Your task to perform on an android device: turn off picture-in-picture Image 0: 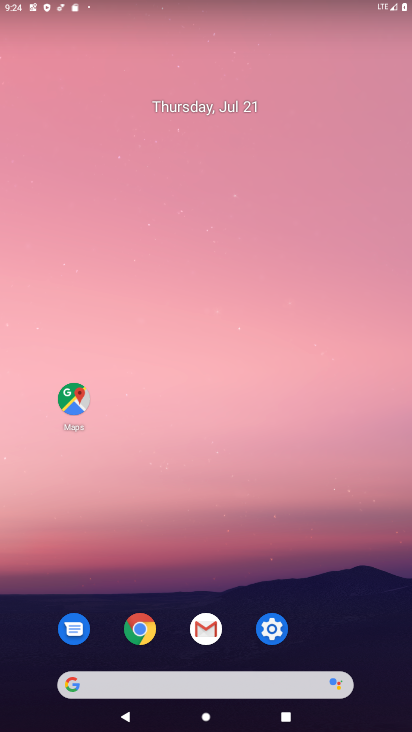
Step 0: drag from (286, 593) to (300, 128)
Your task to perform on an android device: turn off picture-in-picture Image 1: 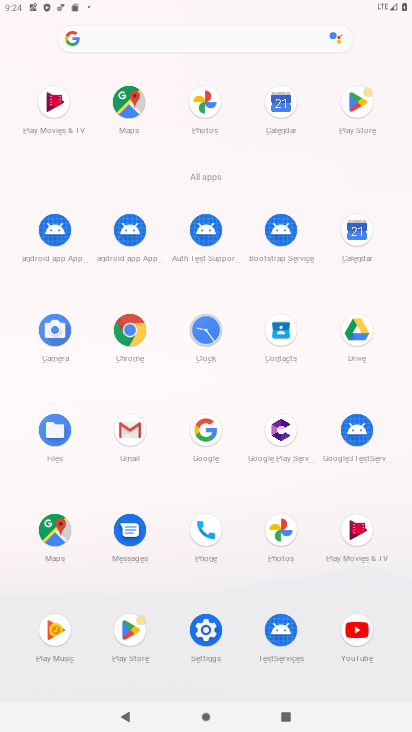
Step 1: click (361, 625)
Your task to perform on an android device: turn off picture-in-picture Image 2: 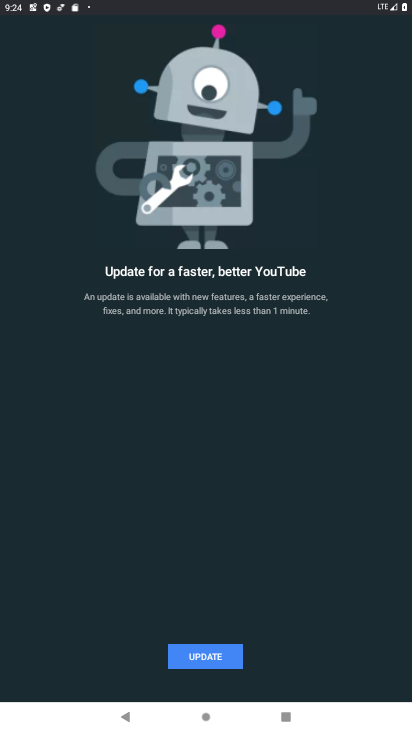
Step 2: click (193, 655)
Your task to perform on an android device: turn off picture-in-picture Image 3: 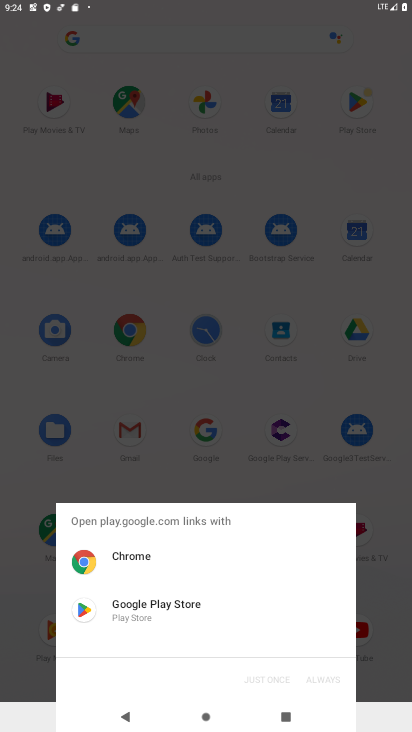
Step 3: click (147, 610)
Your task to perform on an android device: turn off picture-in-picture Image 4: 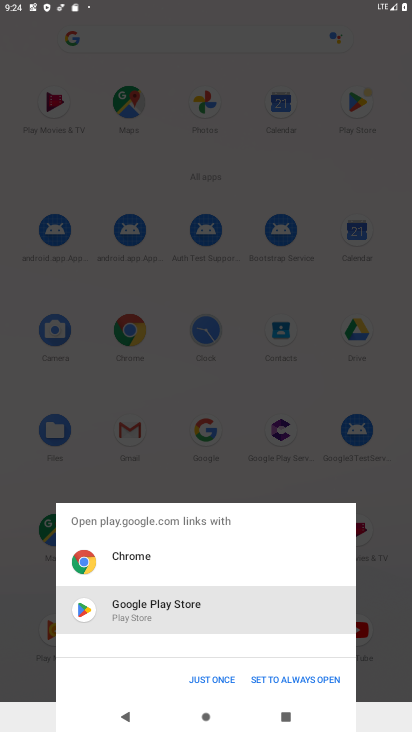
Step 4: click (206, 682)
Your task to perform on an android device: turn off picture-in-picture Image 5: 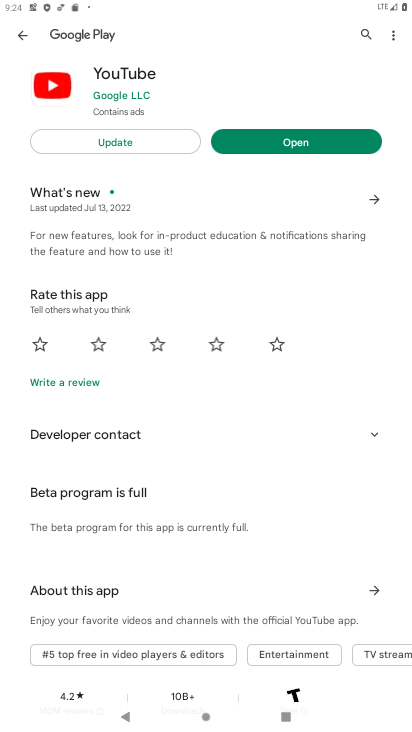
Step 5: click (111, 135)
Your task to perform on an android device: turn off picture-in-picture Image 6: 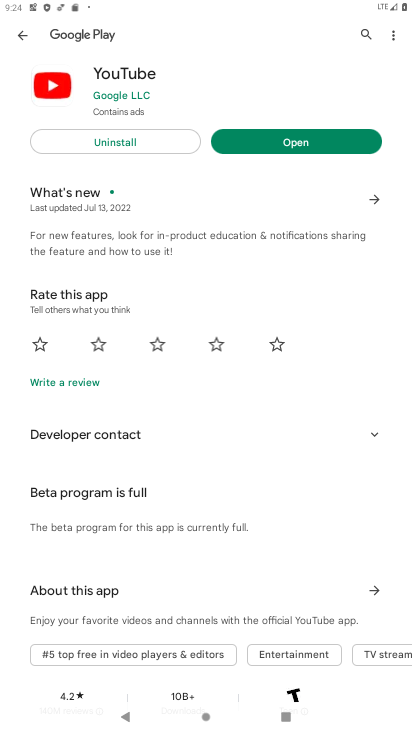
Step 6: click (272, 143)
Your task to perform on an android device: turn off picture-in-picture Image 7: 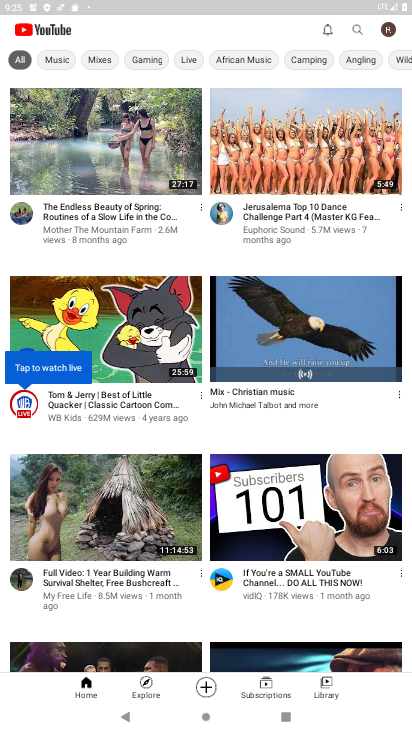
Step 7: click (392, 29)
Your task to perform on an android device: turn off picture-in-picture Image 8: 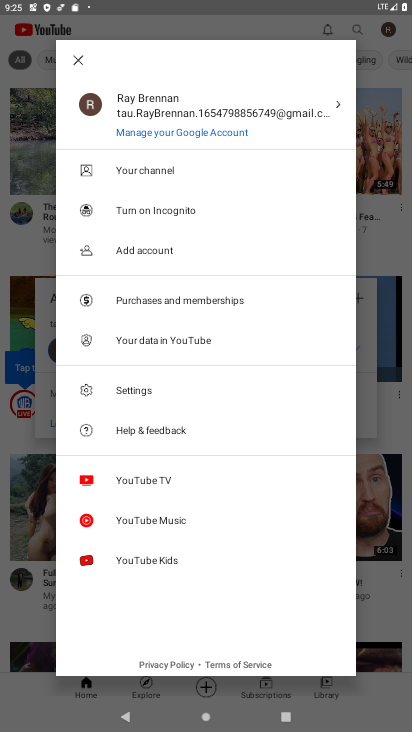
Step 8: click (149, 389)
Your task to perform on an android device: turn off picture-in-picture Image 9: 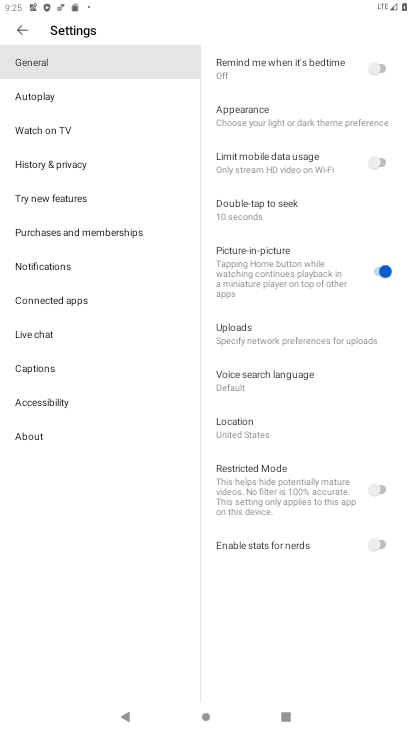
Step 9: click (337, 280)
Your task to perform on an android device: turn off picture-in-picture Image 10: 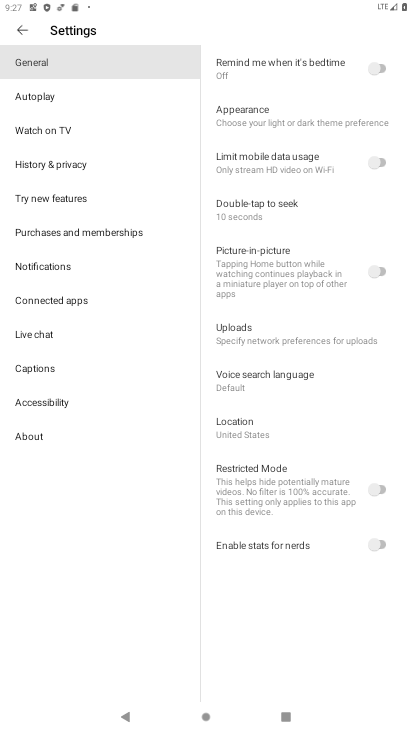
Step 10: task complete